Your task to perform on an android device: Open Google Maps and go to "Timeline" Image 0: 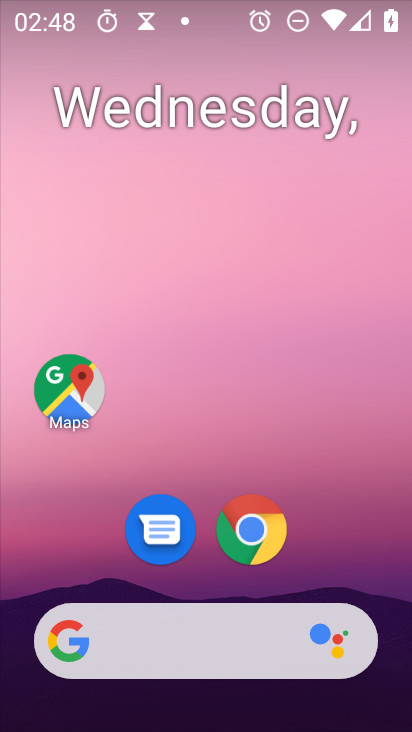
Step 0: drag from (181, 470) to (174, 290)
Your task to perform on an android device: Open Google Maps and go to "Timeline" Image 1: 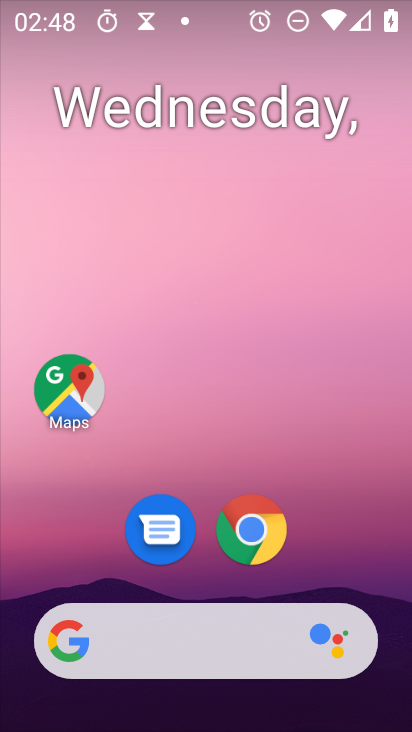
Step 1: drag from (290, 674) to (216, 161)
Your task to perform on an android device: Open Google Maps and go to "Timeline" Image 2: 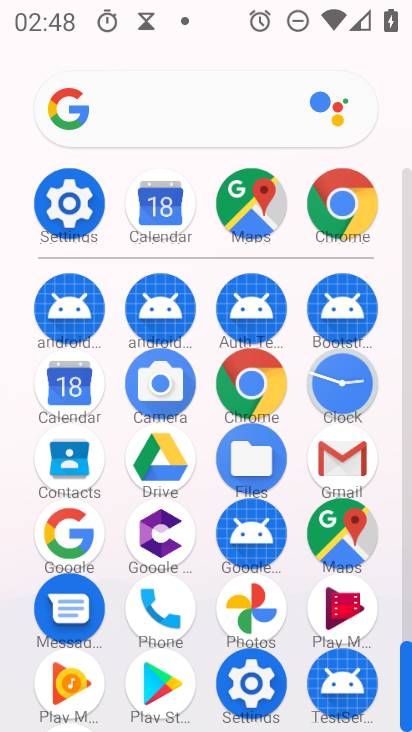
Step 2: click (341, 540)
Your task to perform on an android device: Open Google Maps and go to "Timeline" Image 3: 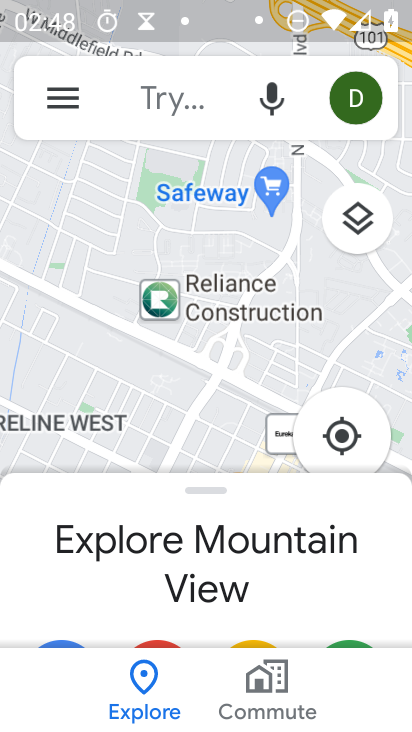
Step 3: click (61, 100)
Your task to perform on an android device: Open Google Maps and go to "Timeline" Image 4: 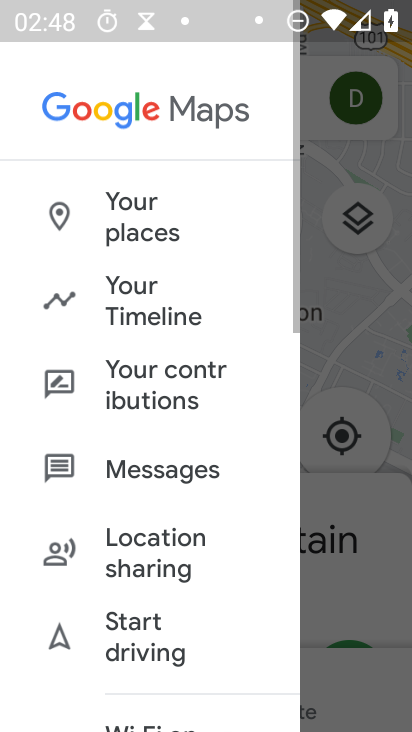
Step 4: click (138, 297)
Your task to perform on an android device: Open Google Maps and go to "Timeline" Image 5: 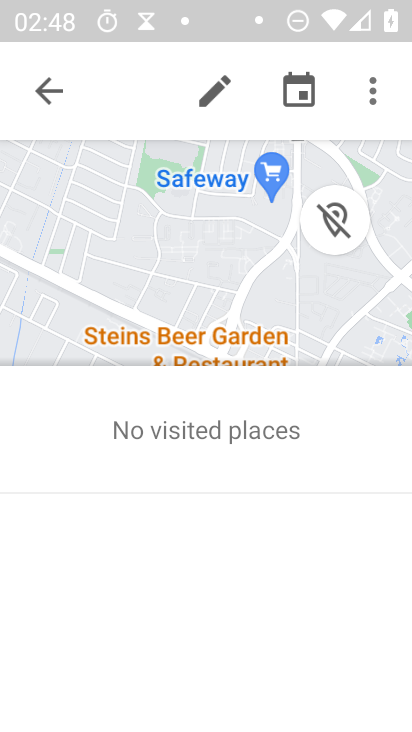
Step 5: task complete